Your task to perform on an android device: toggle priority inbox in the gmail app Image 0: 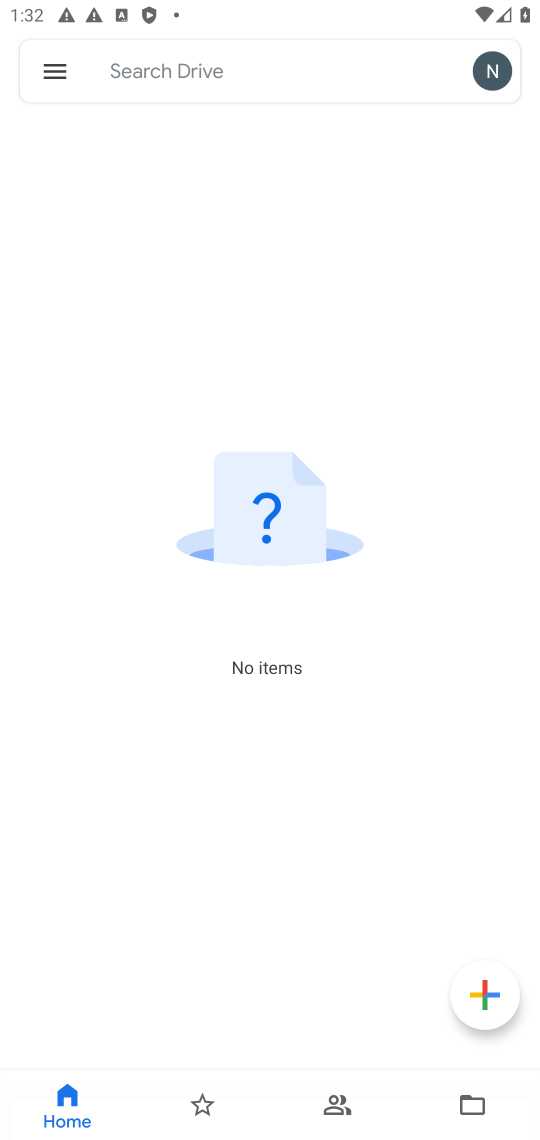
Step 0: press home button
Your task to perform on an android device: toggle priority inbox in the gmail app Image 1: 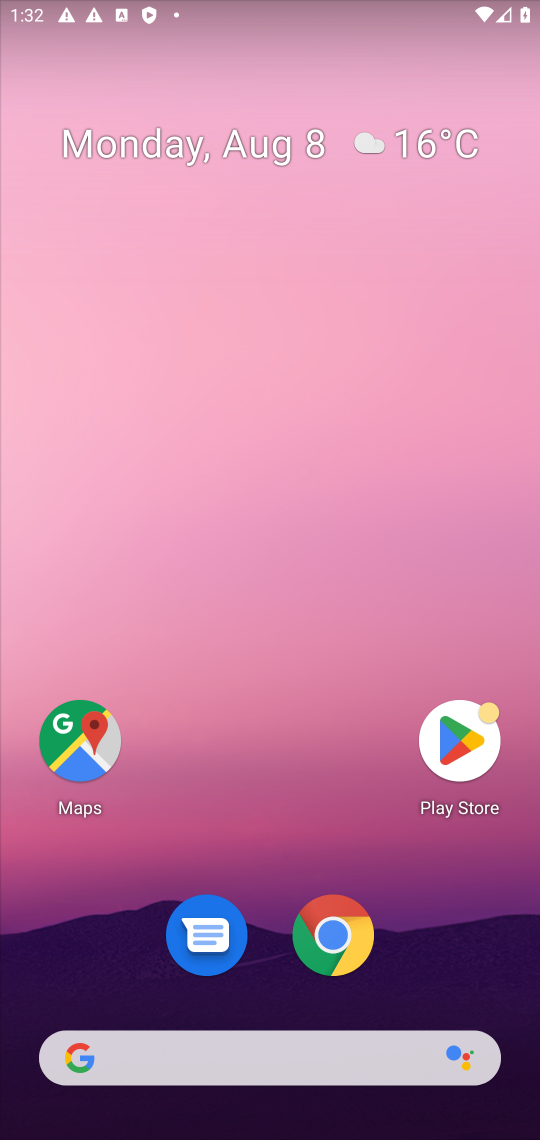
Step 1: drag from (303, 1037) to (202, 76)
Your task to perform on an android device: toggle priority inbox in the gmail app Image 2: 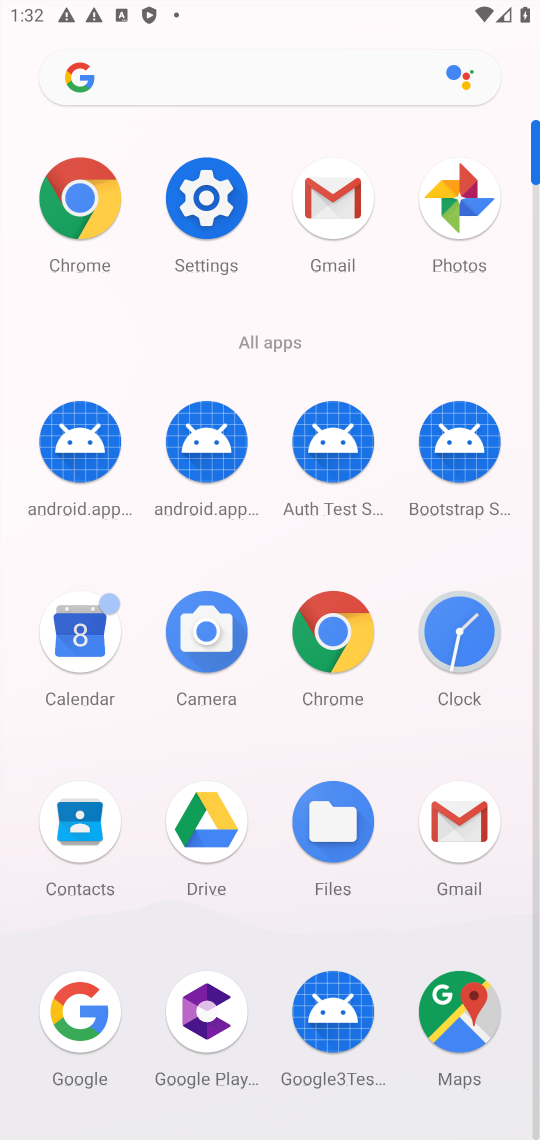
Step 2: click (471, 805)
Your task to perform on an android device: toggle priority inbox in the gmail app Image 3: 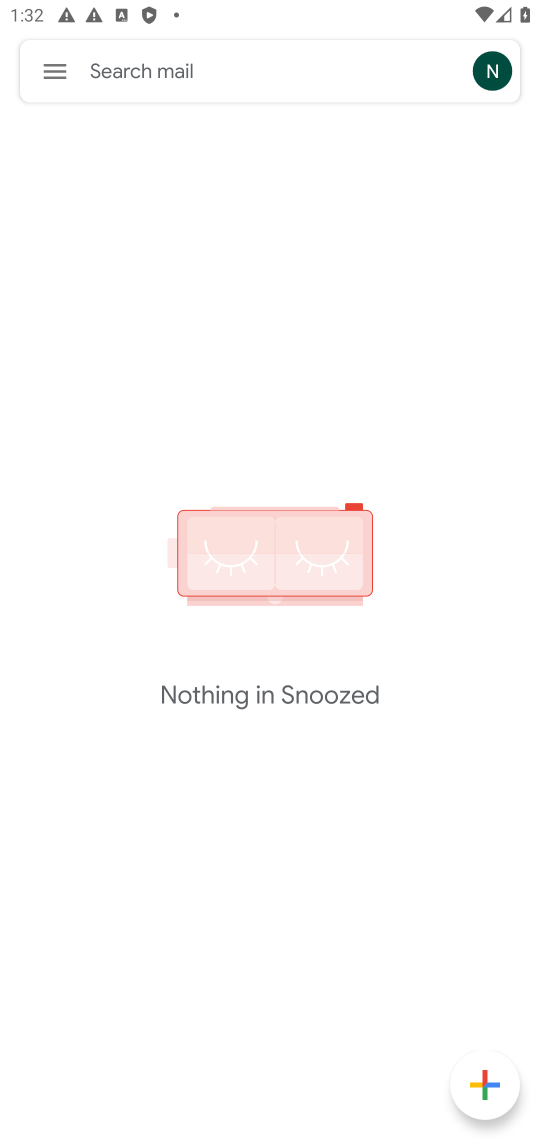
Step 3: click (53, 61)
Your task to perform on an android device: toggle priority inbox in the gmail app Image 4: 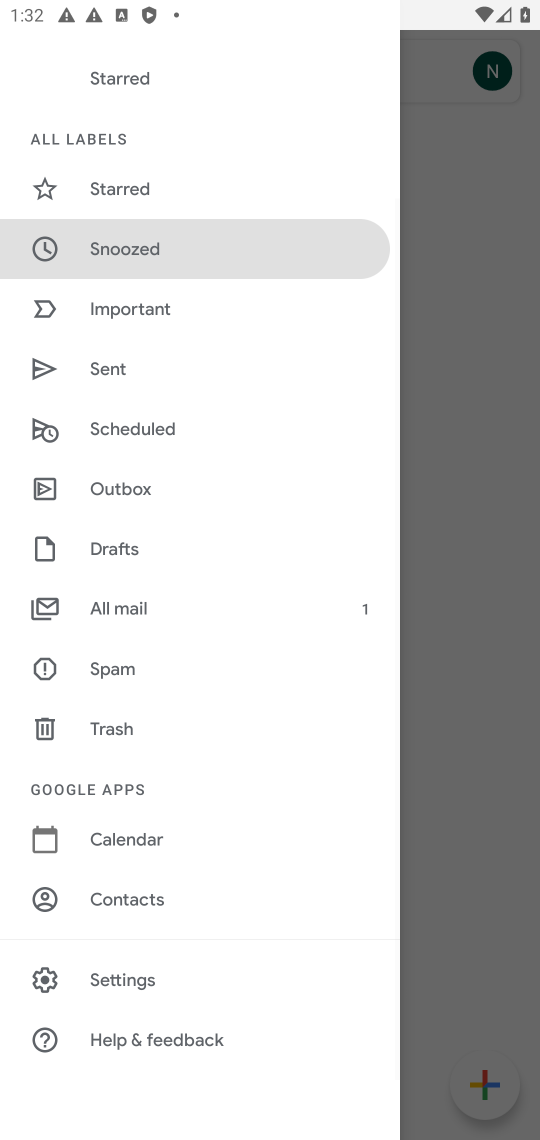
Step 4: click (132, 984)
Your task to perform on an android device: toggle priority inbox in the gmail app Image 5: 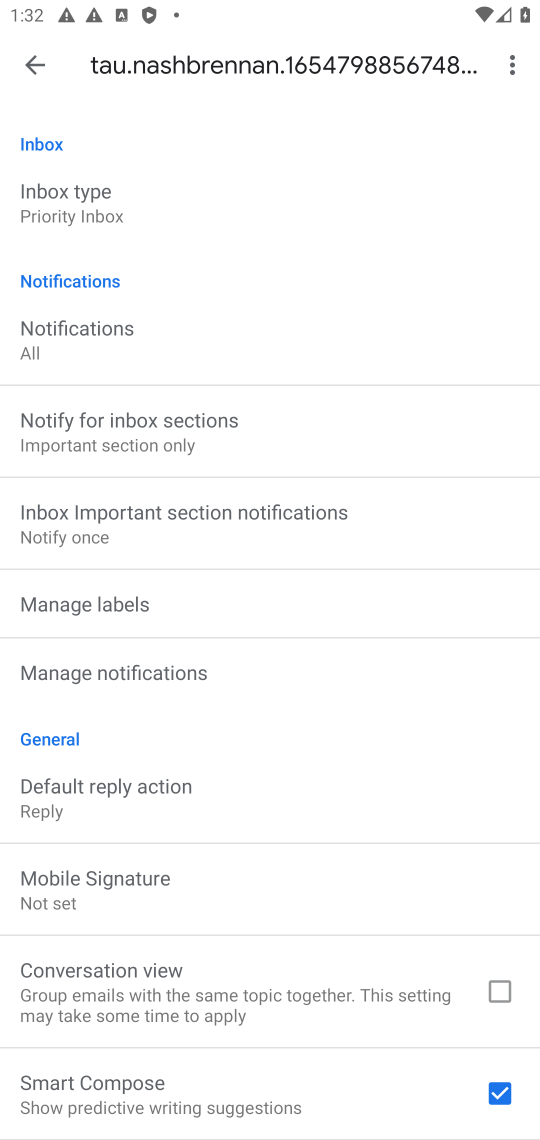
Step 5: click (29, 218)
Your task to perform on an android device: toggle priority inbox in the gmail app Image 6: 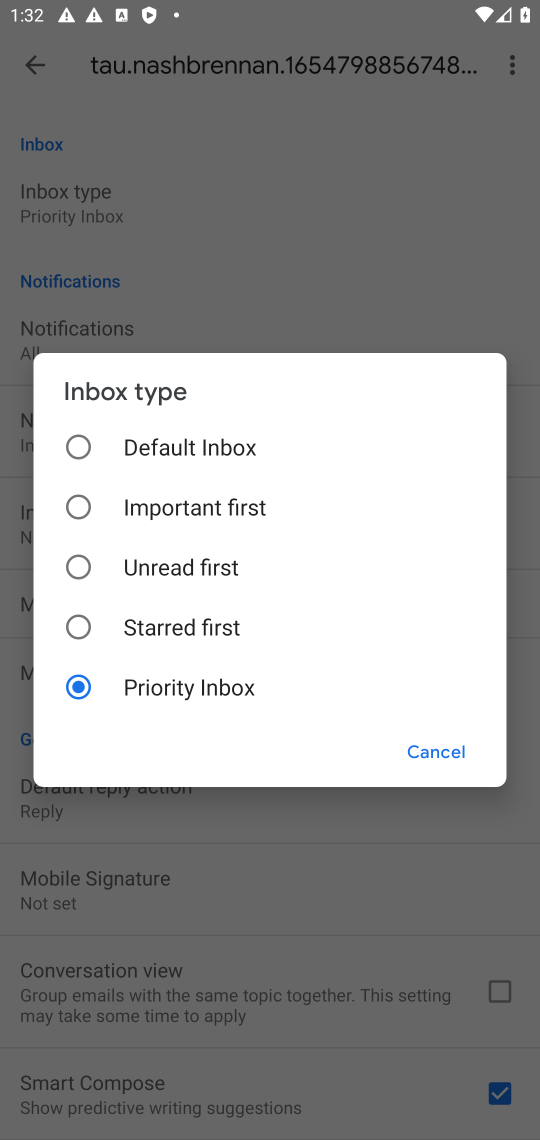
Step 6: click (86, 441)
Your task to perform on an android device: toggle priority inbox in the gmail app Image 7: 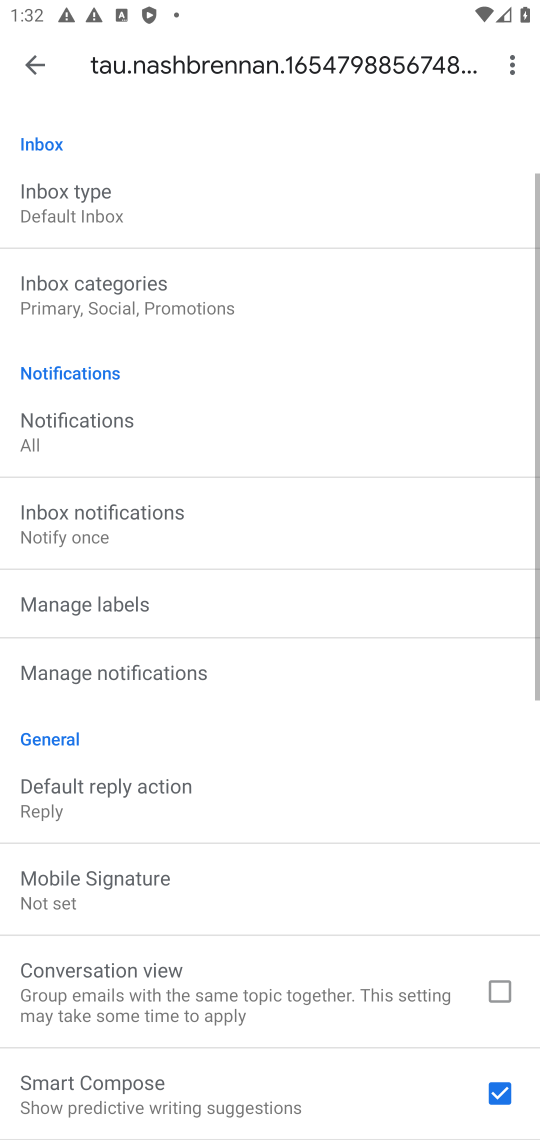
Step 7: task complete